Your task to perform on an android device: Open Amazon Image 0: 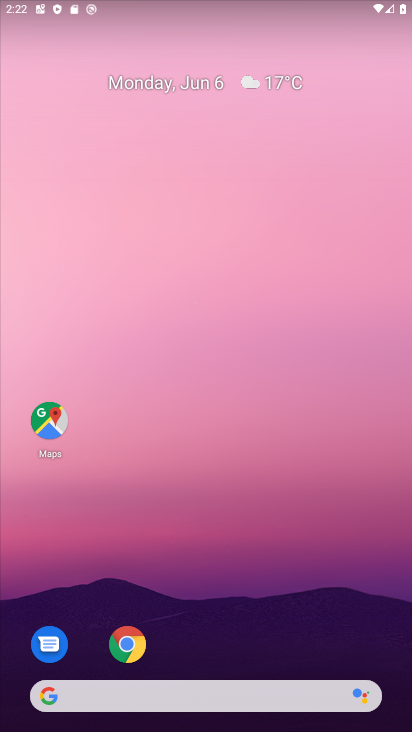
Step 0: drag from (264, 610) to (307, 34)
Your task to perform on an android device: Open Amazon Image 1: 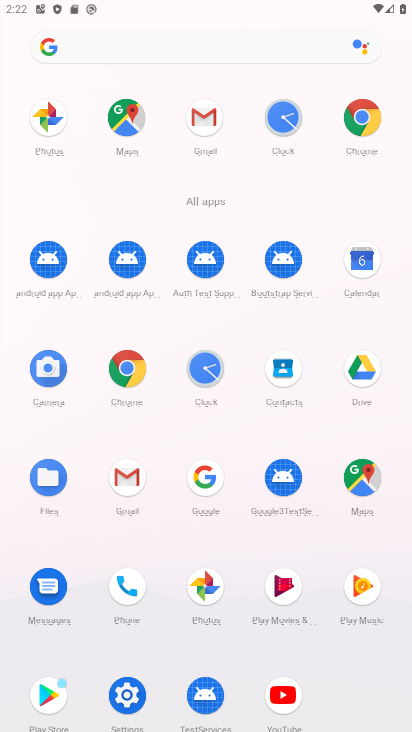
Step 1: click (362, 123)
Your task to perform on an android device: Open Amazon Image 2: 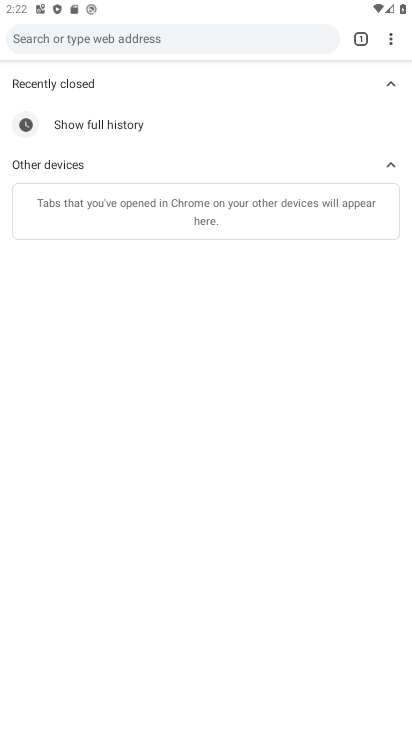
Step 2: click (183, 37)
Your task to perform on an android device: Open Amazon Image 3: 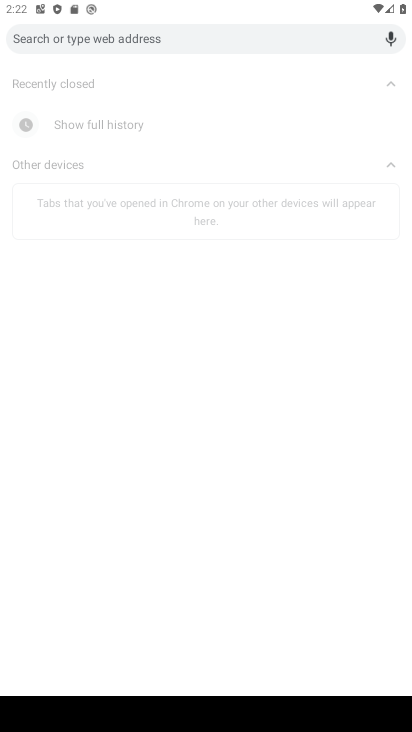
Step 3: type "amazon"
Your task to perform on an android device: Open Amazon Image 4: 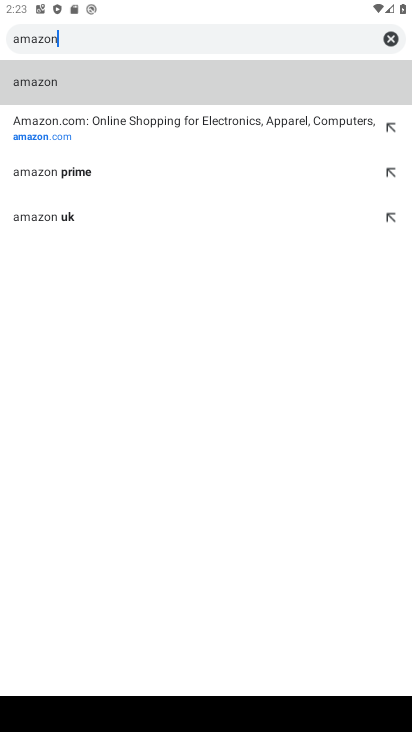
Step 4: click (28, 88)
Your task to perform on an android device: Open Amazon Image 5: 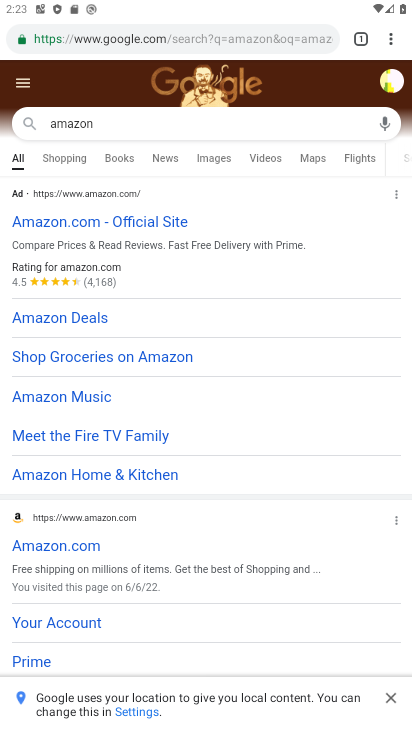
Step 5: click (83, 218)
Your task to perform on an android device: Open Amazon Image 6: 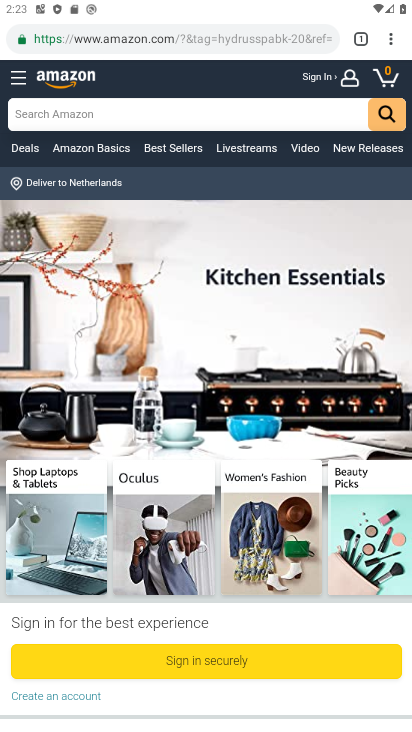
Step 6: task complete